Your task to perform on an android device: turn off improve location accuracy Image 0: 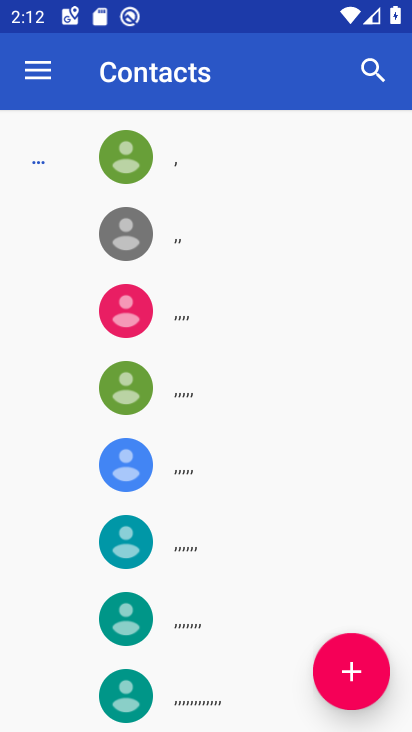
Step 0: press home button
Your task to perform on an android device: turn off improve location accuracy Image 1: 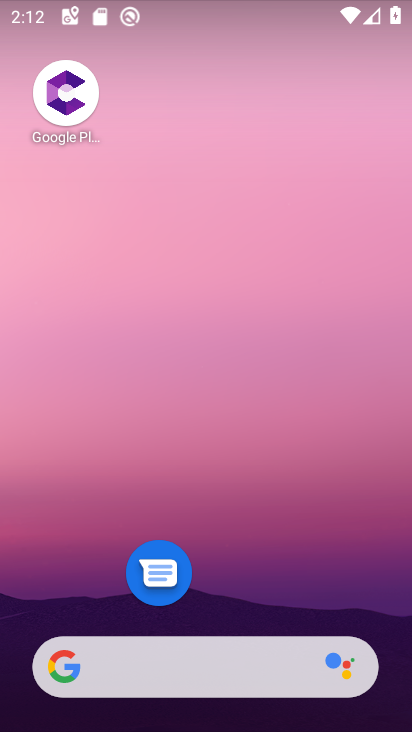
Step 1: drag from (232, 604) to (217, 86)
Your task to perform on an android device: turn off improve location accuracy Image 2: 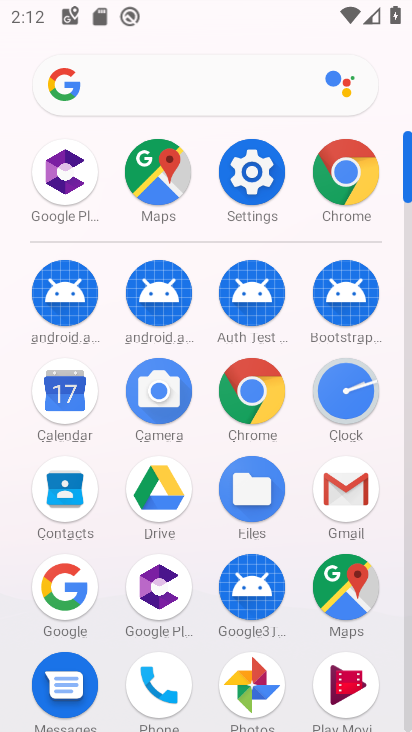
Step 2: click (247, 186)
Your task to perform on an android device: turn off improve location accuracy Image 3: 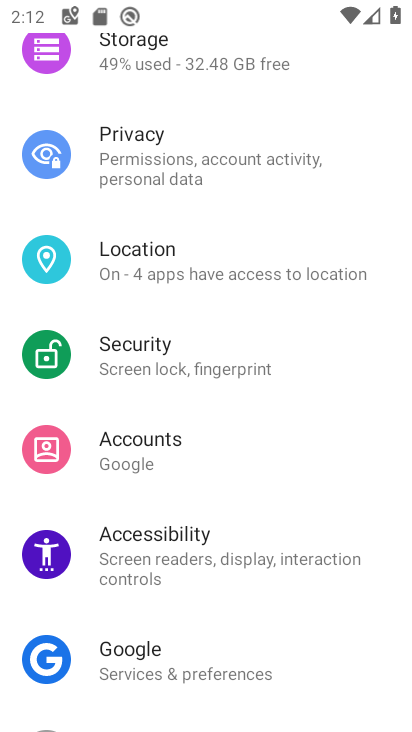
Step 3: click (156, 272)
Your task to perform on an android device: turn off improve location accuracy Image 4: 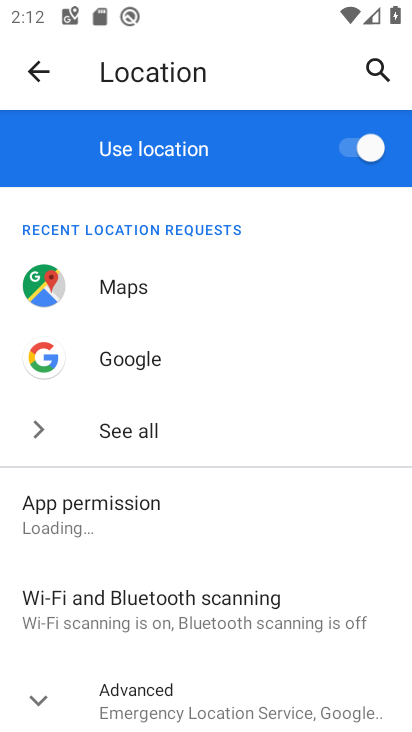
Step 4: drag from (147, 639) to (126, 292)
Your task to perform on an android device: turn off improve location accuracy Image 5: 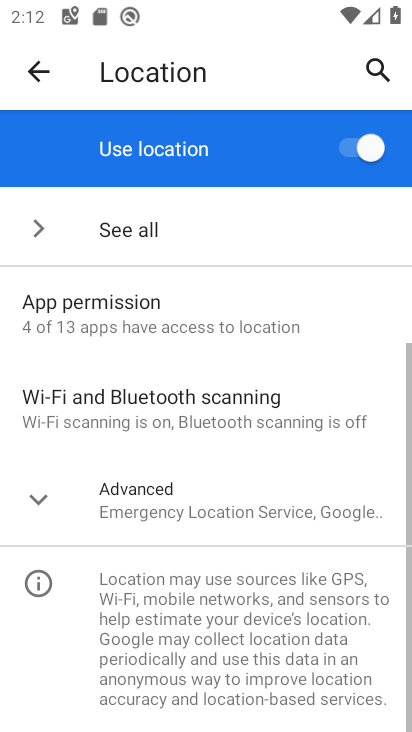
Step 5: click (199, 519)
Your task to perform on an android device: turn off improve location accuracy Image 6: 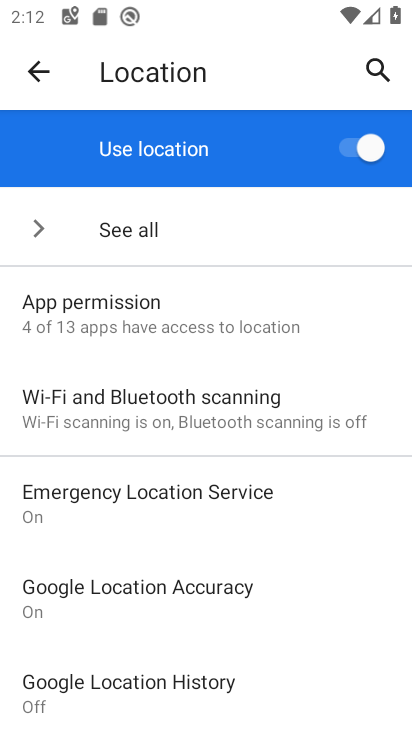
Step 6: click (188, 569)
Your task to perform on an android device: turn off improve location accuracy Image 7: 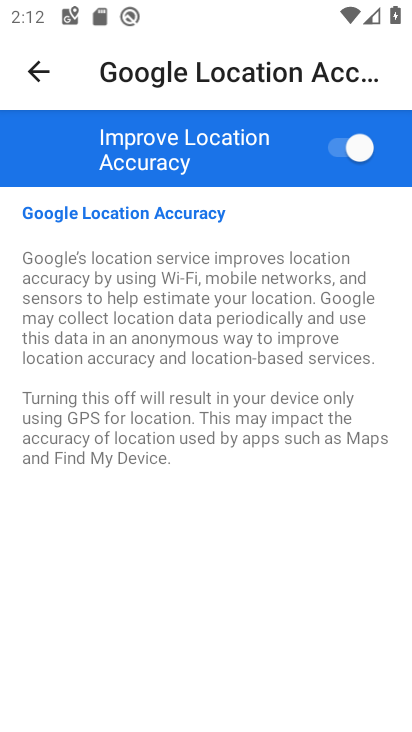
Step 7: click (366, 156)
Your task to perform on an android device: turn off improve location accuracy Image 8: 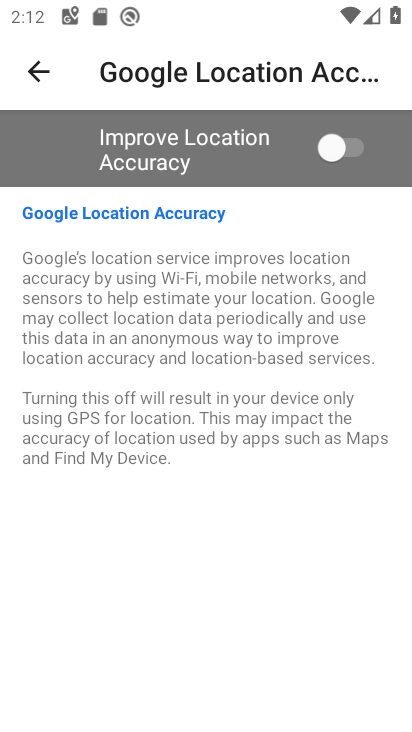
Step 8: task complete